Your task to perform on an android device: Search for good Greek restaurants Image 0: 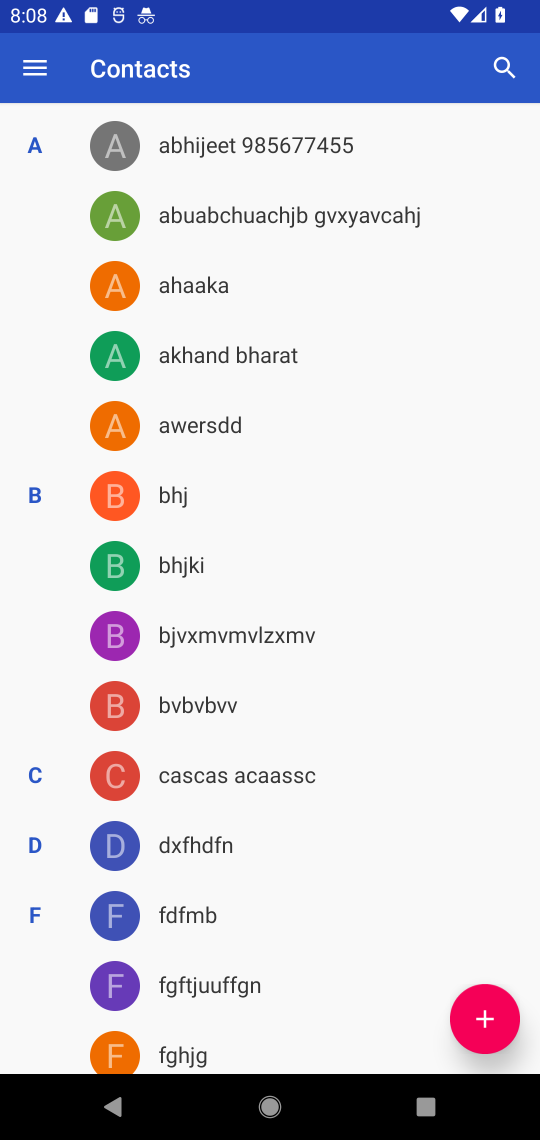
Step 0: press home button
Your task to perform on an android device: Search for good Greek restaurants Image 1: 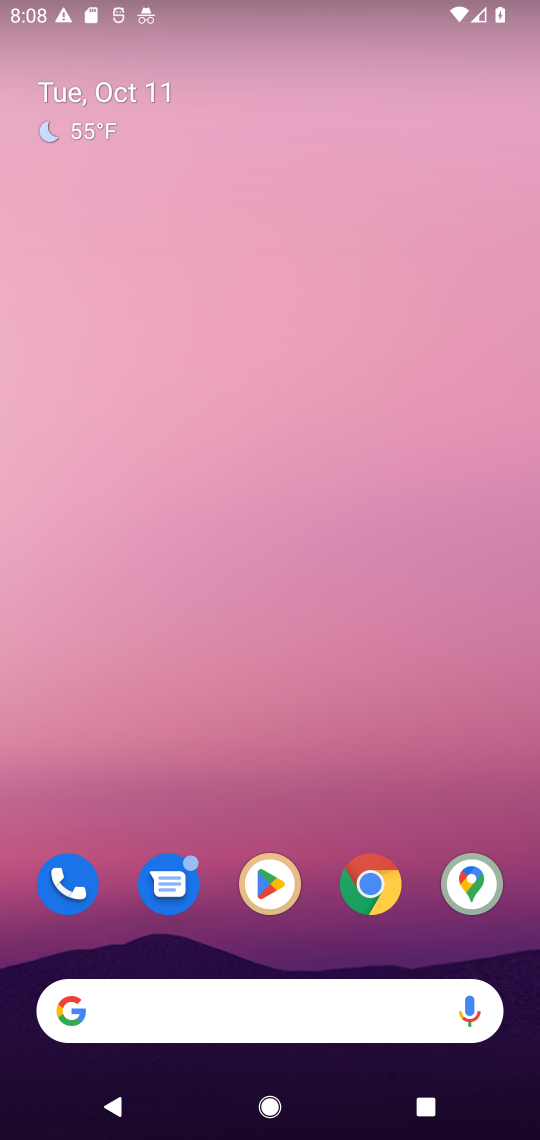
Step 1: drag from (328, 978) to (315, 231)
Your task to perform on an android device: Search for good Greek restaurants Image 2: 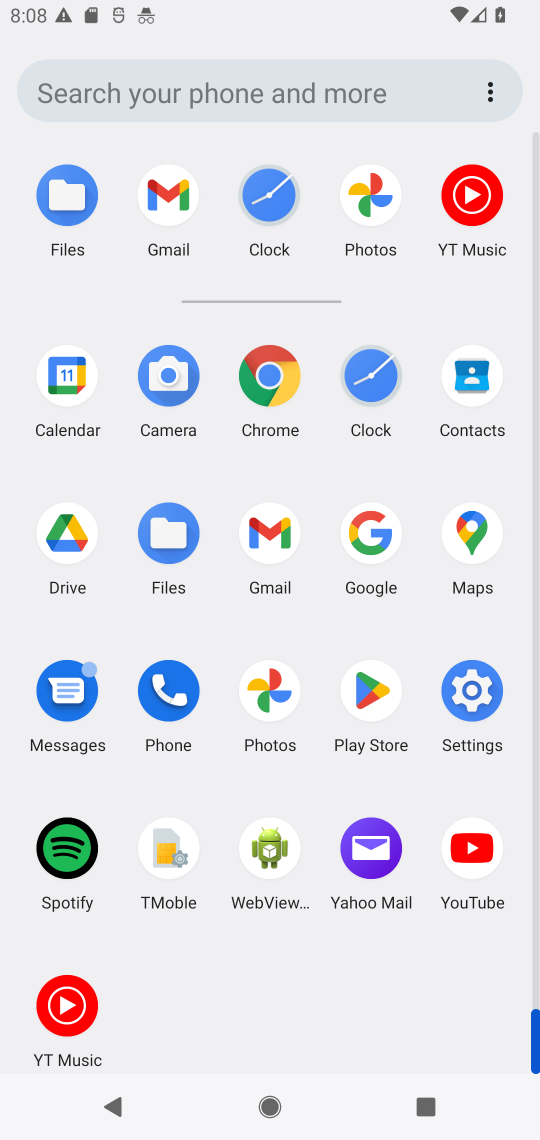
Step 2: click (374, 527)
Your task to perform on an android device: Search for good Greek restaurants Image 3: 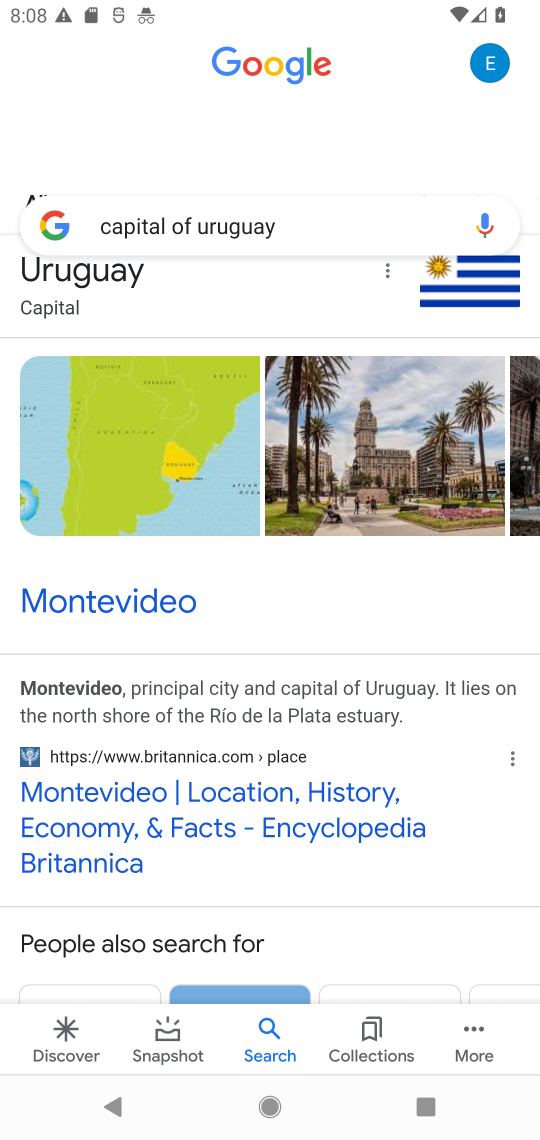
Step 3: click (305, 216)
Your task to perform on an android device: Search for good Greek restaurants Image 4: 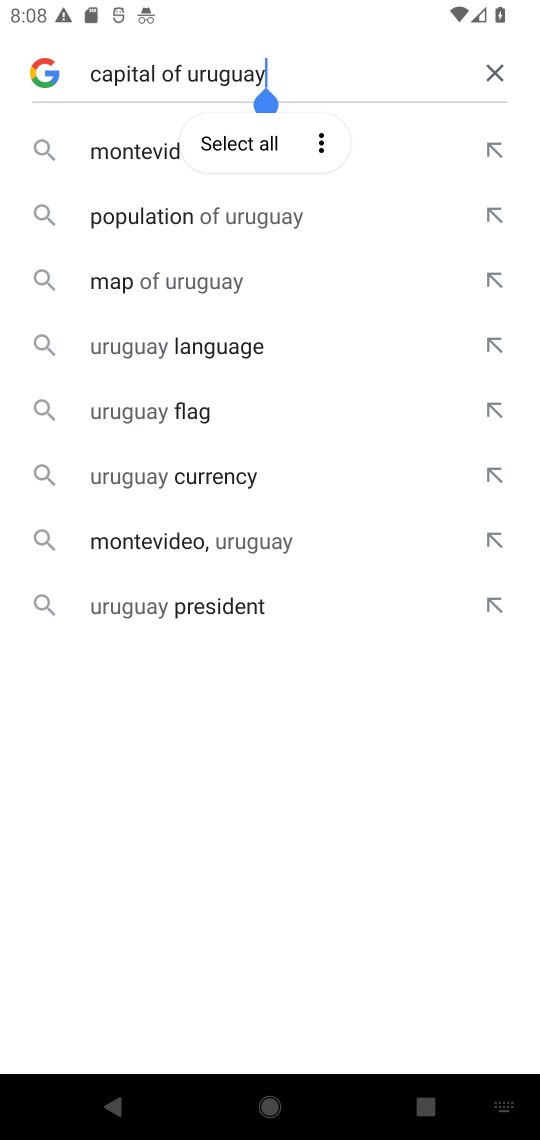
Step 4: click (487, 79)
Your task to perform on an android device: Search for good Greek restaurants Image 5: 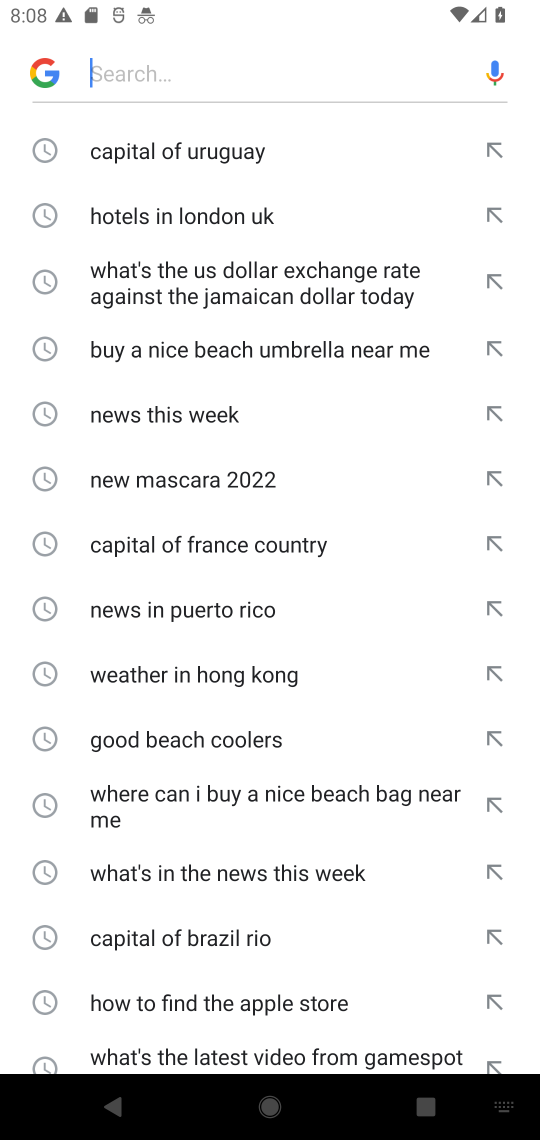
Step 5: type " good Greek restaurants"
Your task to perform on an android device: Search for good Greek restaurants Image 6: 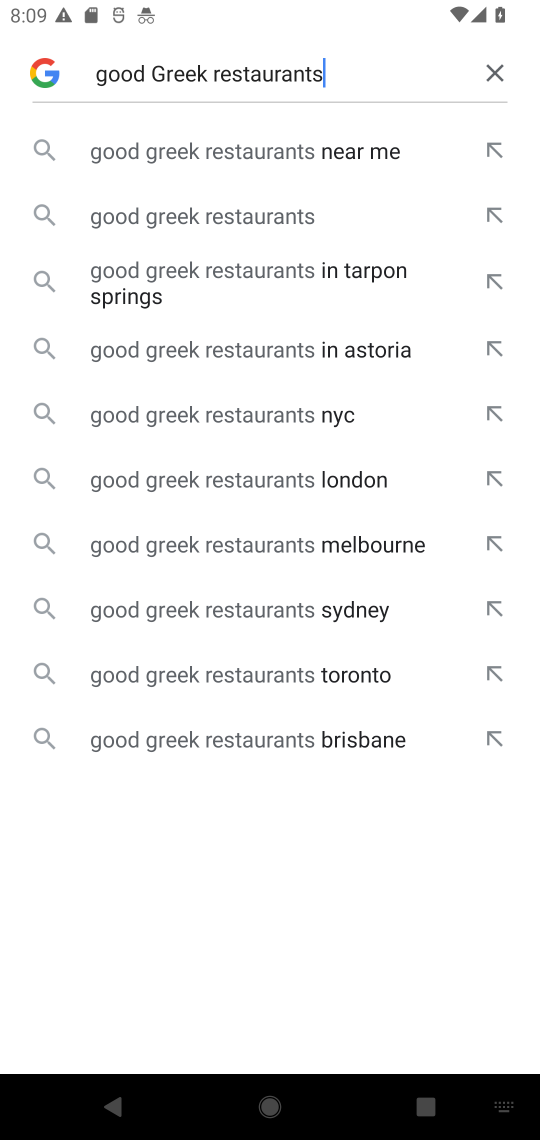
Step 6: click (242, 222)
Your task to perform on an android device: Search for good Greek restaurants Image 7: 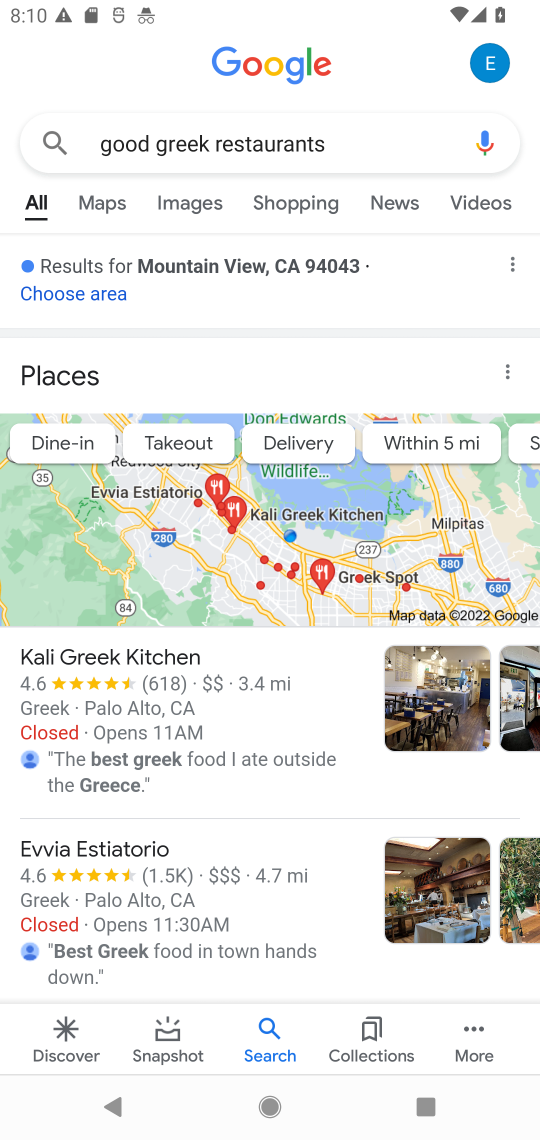
Step 7: task complete